Your task to perform on an android device: turn off priority inbox in the gmail app Image 0: 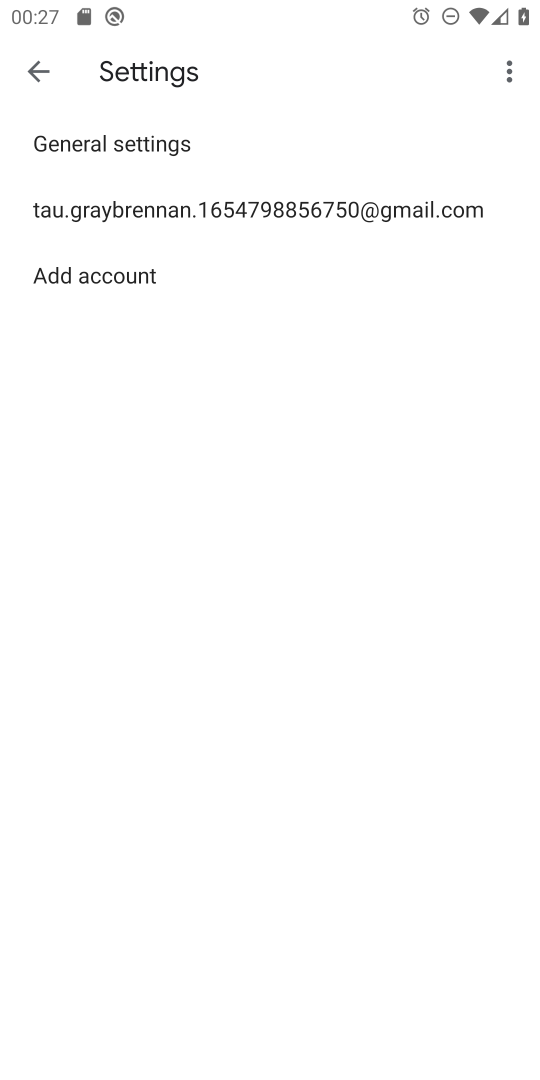
Step 0: press home button
Your task to perform on an android device: turn off priority inbox in the gmail app Image 1: 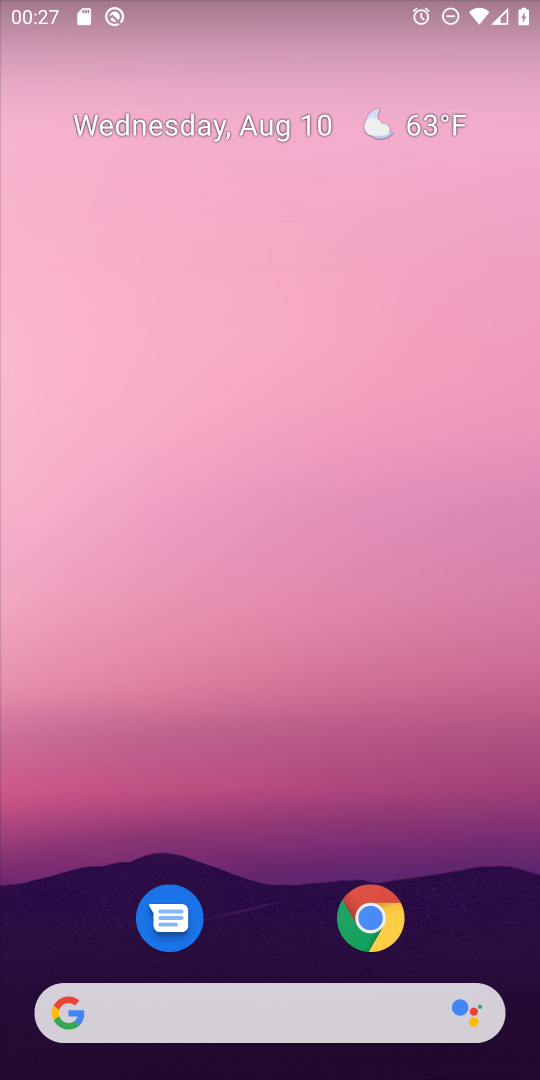
Step 1: drag from (268, 814) to (264, 188)
Your task to perform on an android device: turn off priority inbox in the gmail app Image 2: 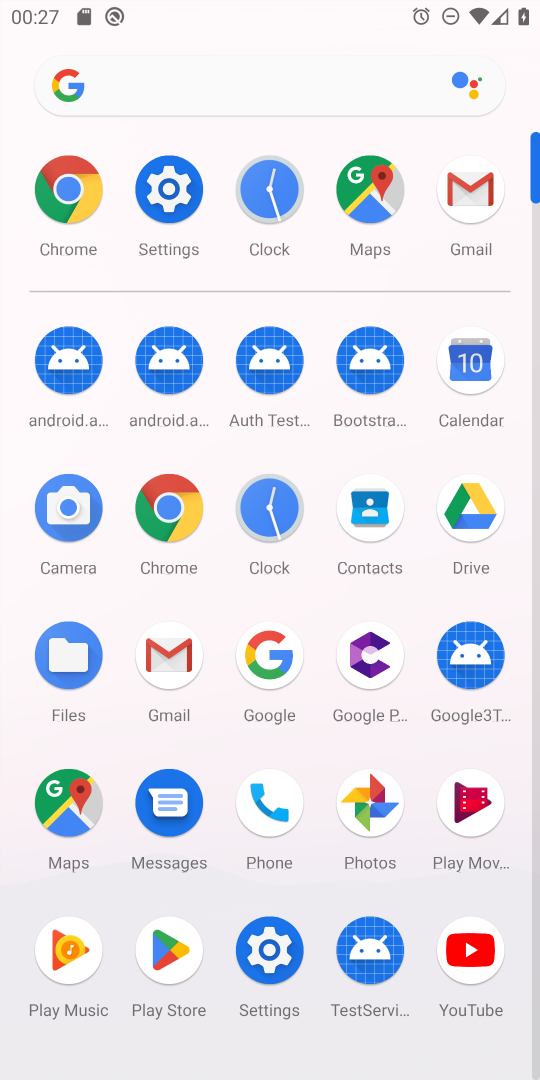
Step 2: click (172, 665)
Your task to perform on an android device: turn off priority inbox in the gmail app Image 3: 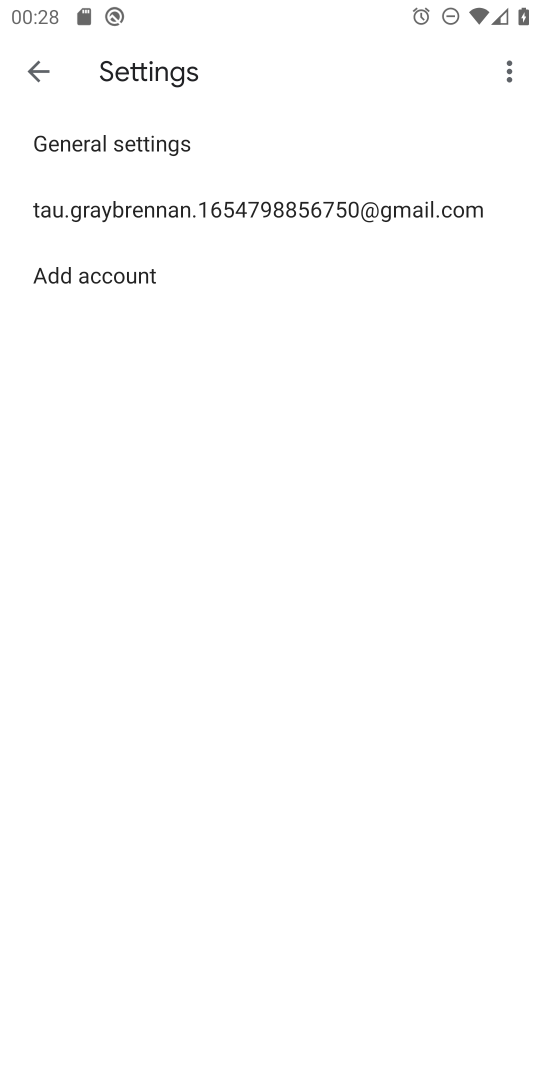
Step 3: click (178, 199)
Your task to perform on an android device: turn off priority inbox in the gmail app Image 4: 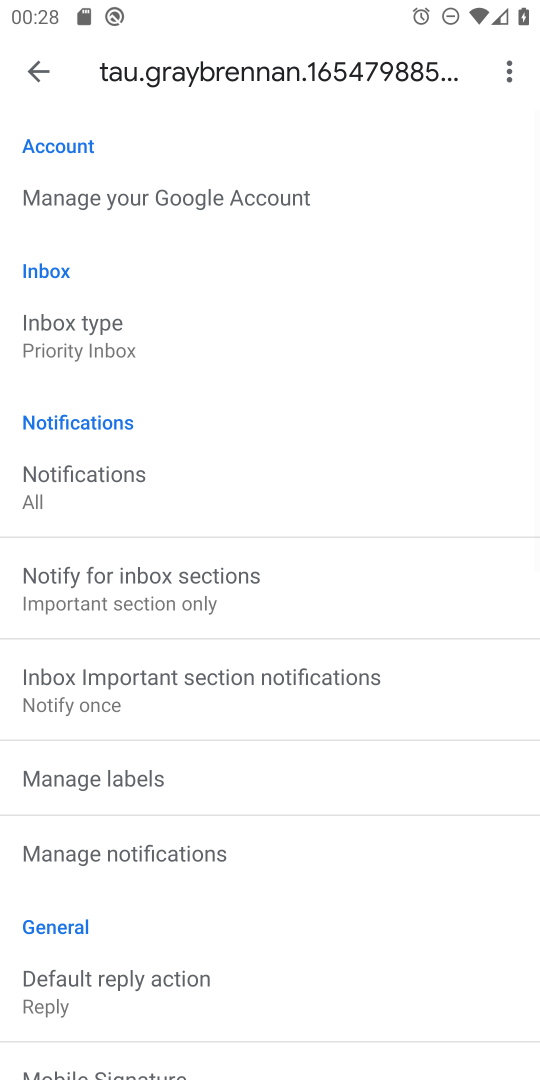
Step 4: click (87, 348)
Your task to perform on an android device: turn off priority inbox in the gmail app Image 5: 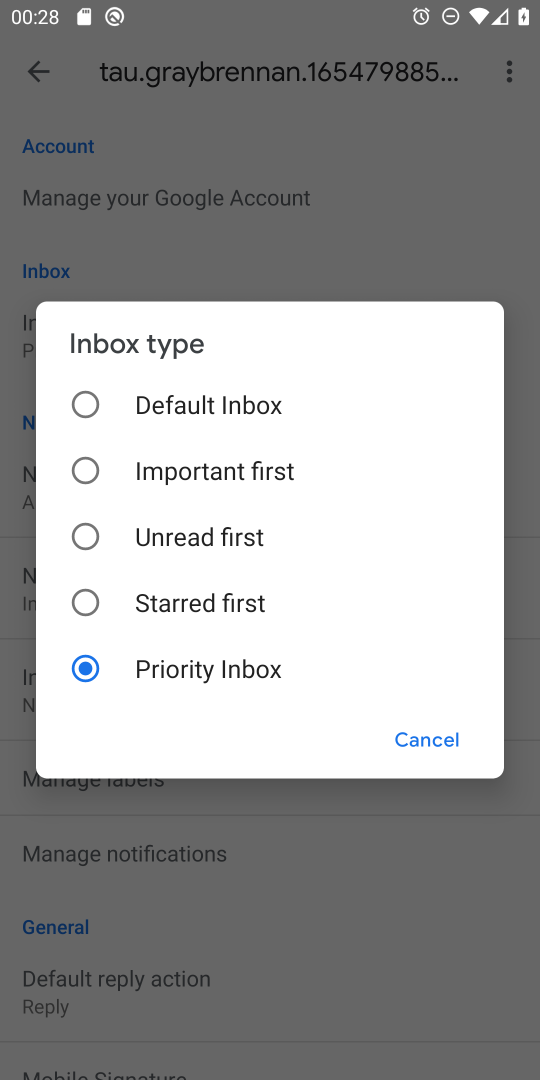
Step 5: task complete